Your task to perform on an android device: Go to location settings Image 0: 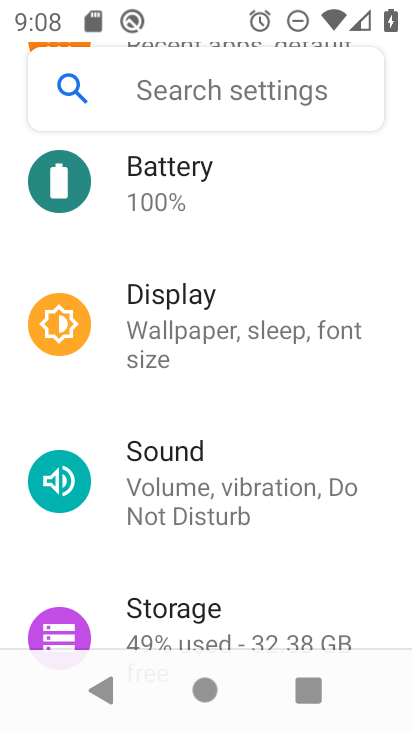
Step 0: press home button
Your task to perform on an android device: Go to location settings Image 1: 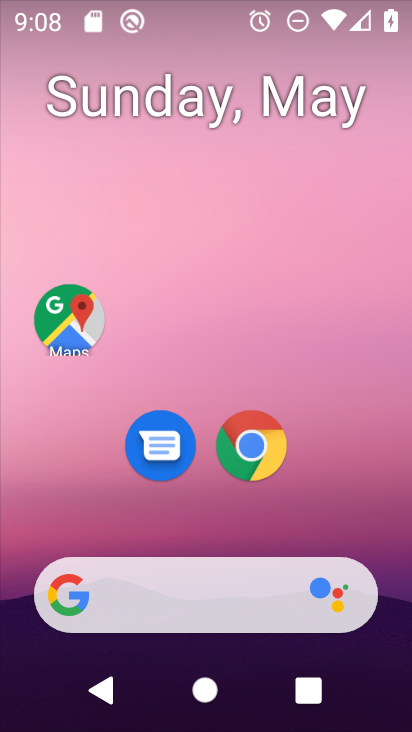
Step 1: drag from (266, 544) to (299, 84)
Your task to perform on an android device: Go to location settings Image 2: 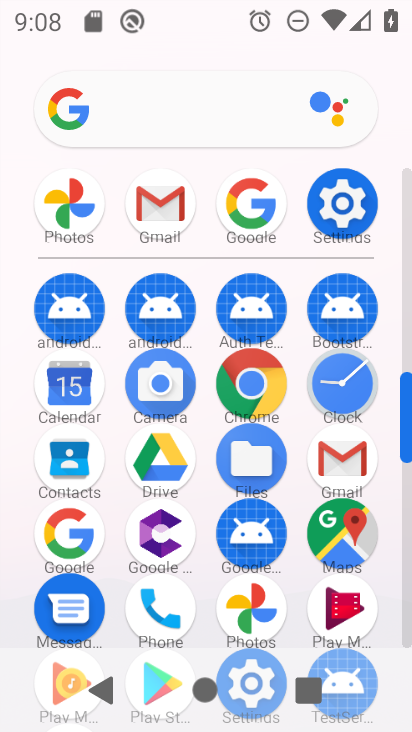
Step 2: click (331, 210)
Your task to perform on an android device: Go to location settings Image 3: 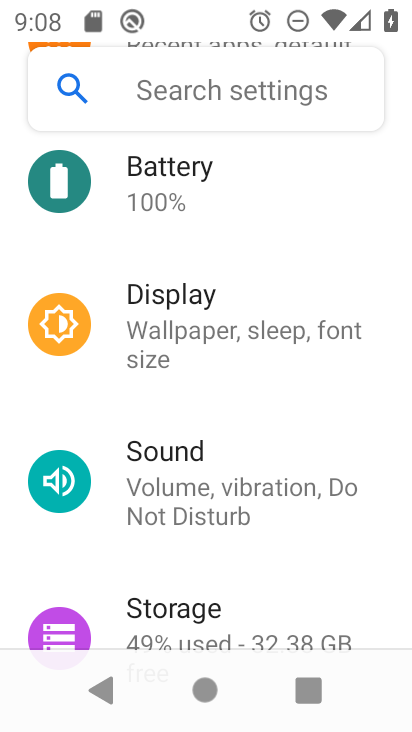
Step 3: drag from (208, 437) to (223, 262)
Your task to perform on an android device: Go to location settings Image 4: 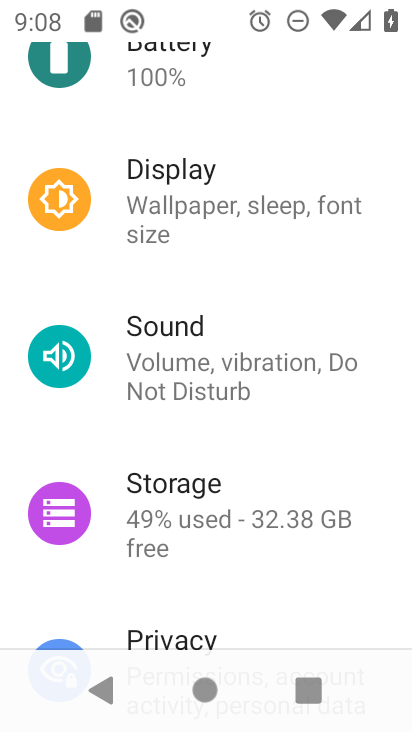
Step 4: drag from (201, 481) to (221, 342)
Your task to perform on an android device: Go to location settings Image 5: 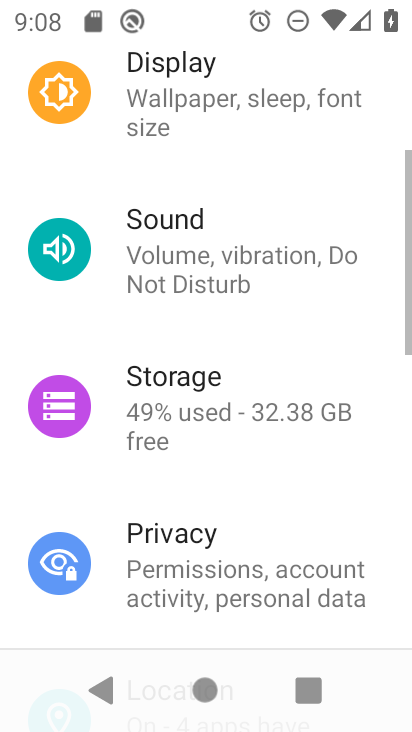
Step 5: drag from (228, 251) to (233, 216)
Your task to perform on an android device: Go to location settings Image 6: 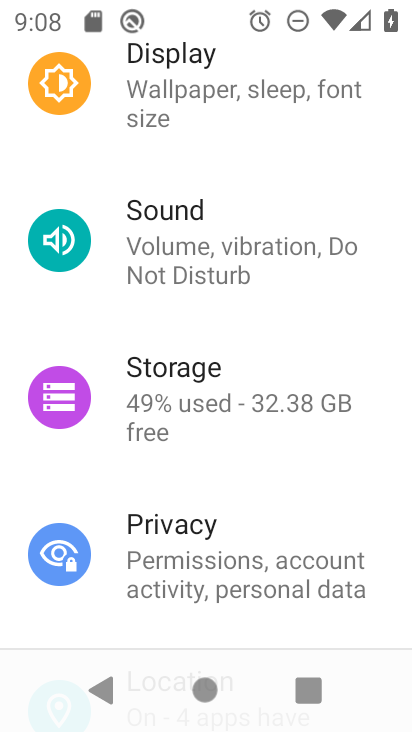
Step 6: drag from (193, 476) to (229, 241)
Your task to perform on an android device: Go to location settings Image 7: 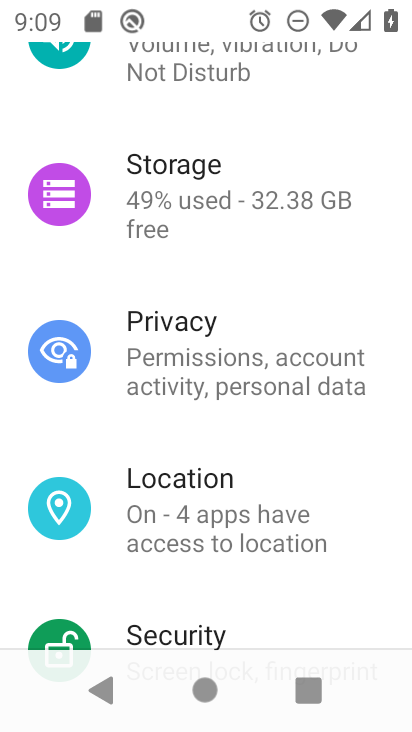
Step 7: click (249, 508)
Your task to perform on an android device: Go to location settings Image 8: 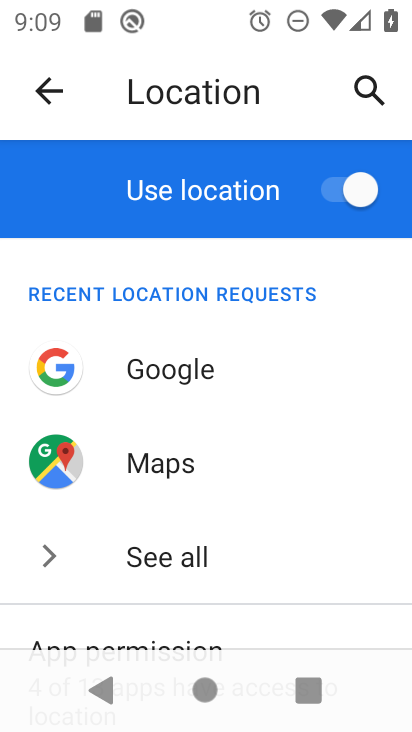
Step 8: task complete